Your task to perform on an android device: Go to network settings Image 0: 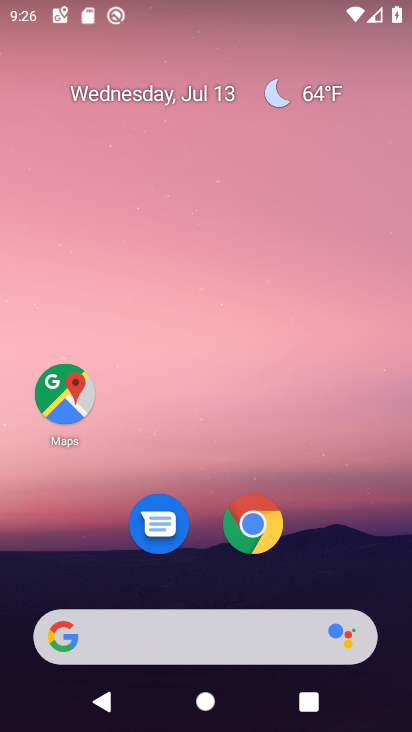
Step 0: drag from (202, 608) to (147, 50)
Your task to perform on an android device: Go to network settings Image 1: 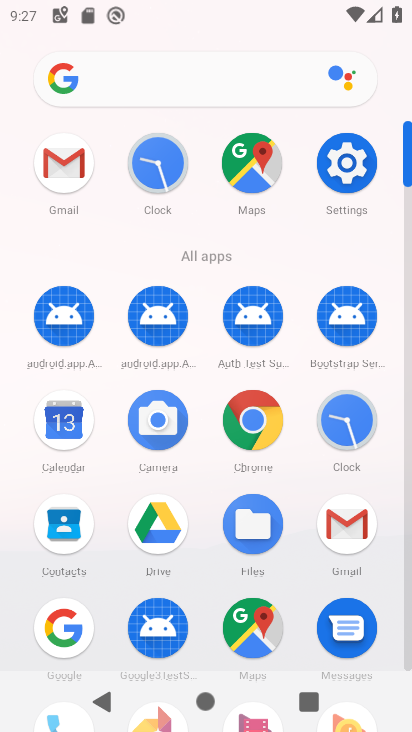
Step 1: click (353, 181)
Your task to perform on an android device: Go to network settings Image 2: 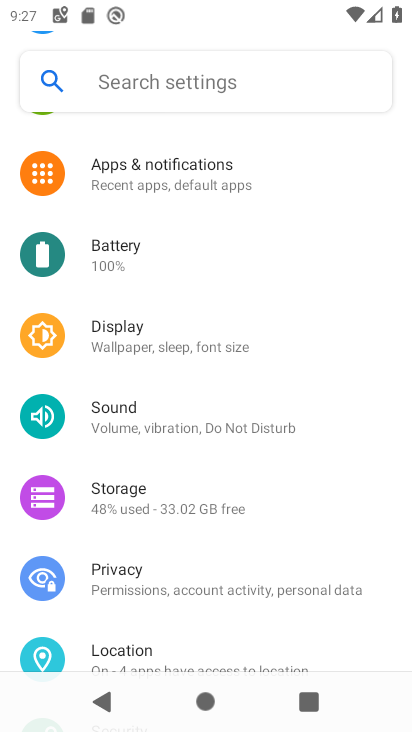
Step 2: drag from (125, 184) to (128, 539)
Your task to perform on an android device: Go to network settings Image 3: 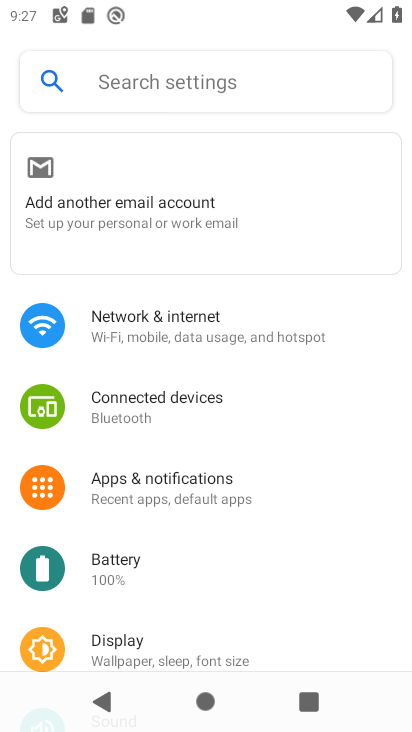
Step 3: click (126, 338)
Your task to perform on an android device: Go to network settings Image 4: 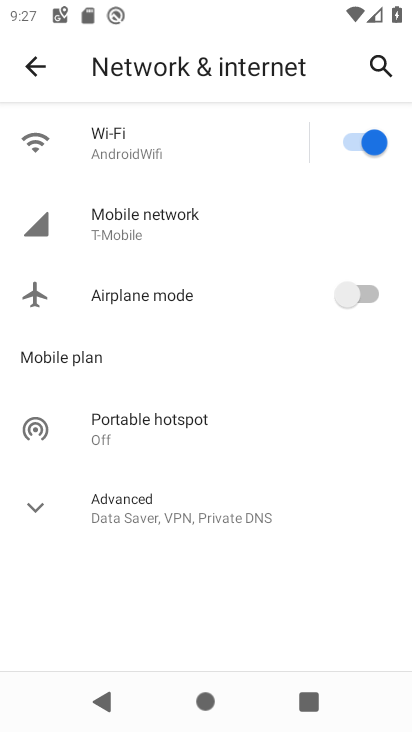
Step 4: click (103, 218)
Your task to perform on an android device: Go to network settings Image 5: 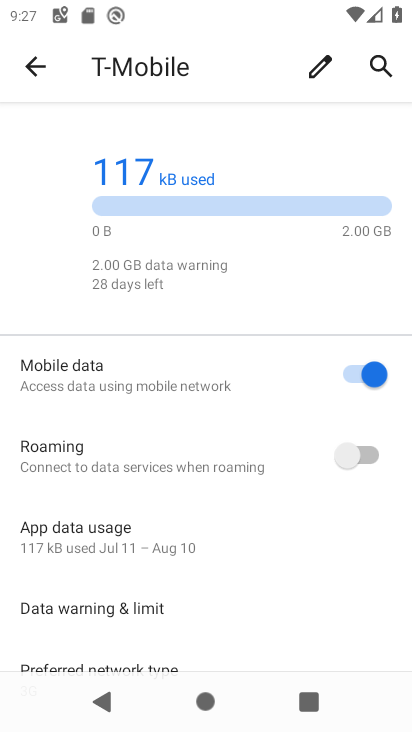
Step 5: task complete